Your task to perform on an android device: clear history in the chrome app Image 0: 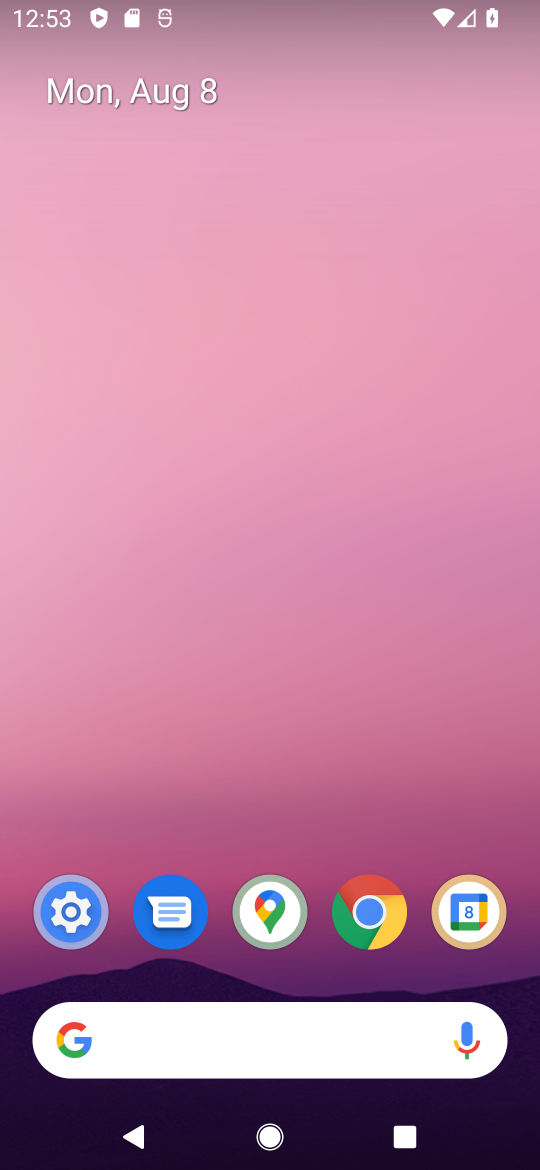
Step 0: click (372, 905)
Your task to perform on an android device: clear history in the chrome app Image 1: 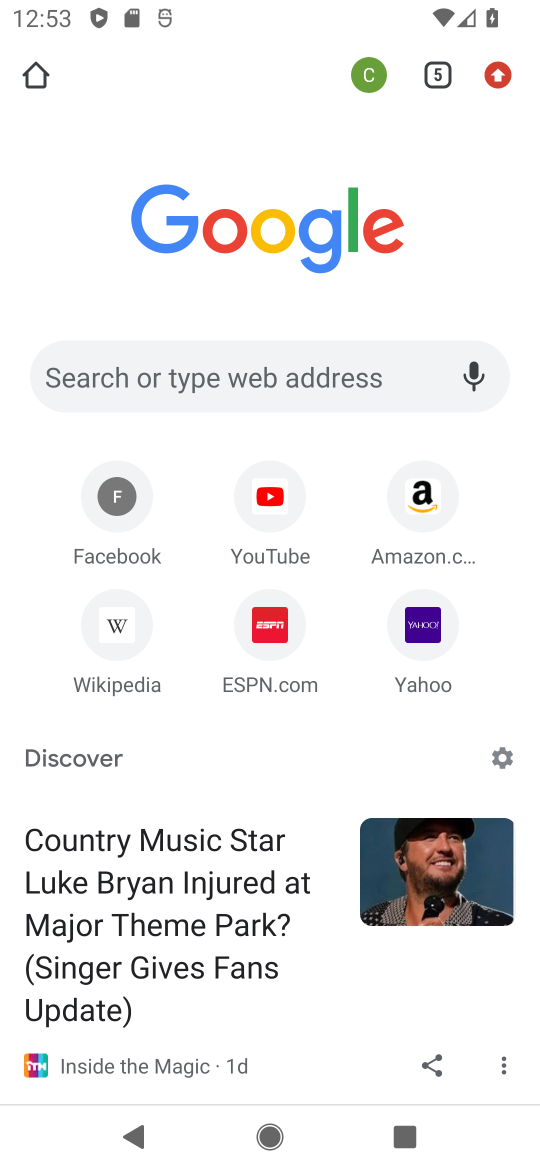
Step 1: task complete